Your task to perform on an android device: see tabs open on other devices in the chrome app Image 0: 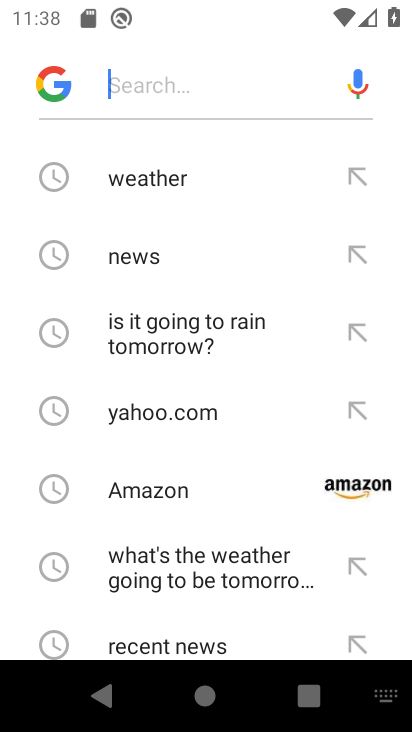
Step 0: press home button
Your task to perform on an android device: see tabs open on other devices in the chrome app Image 1: 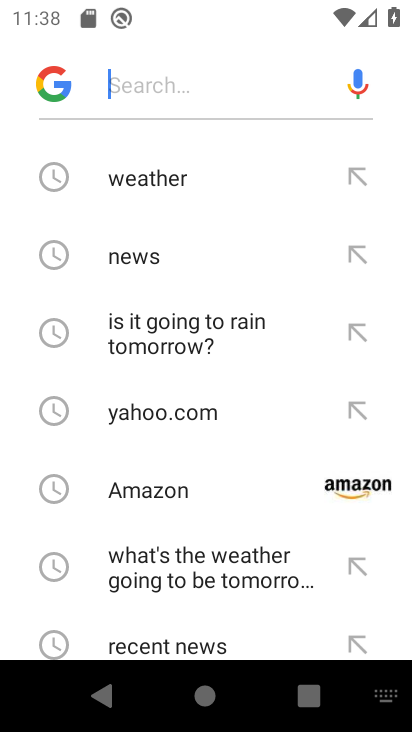
Step 1: click (324, 388)
Your task to perform on an android device: see tabs open on other devices in the chrome app Image 2: 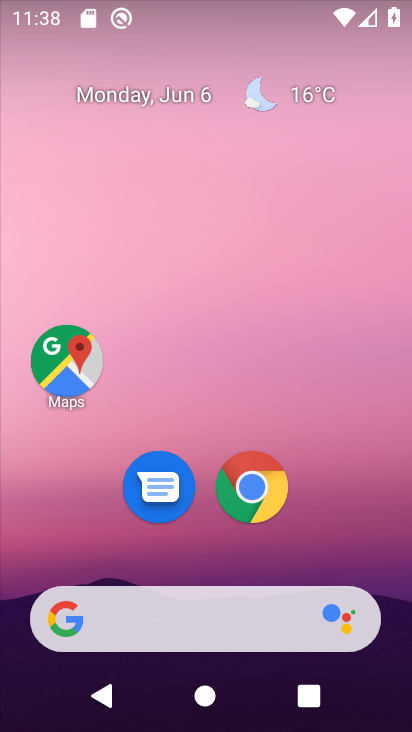
Step 2: click (265, 467)
Your task to perform on an android device: see tabs open on other devices in the chrome app Image 3: 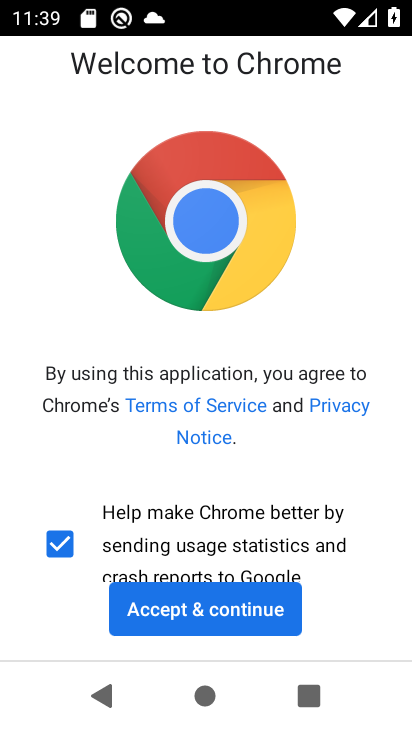
Step 3: click (232, 615)
Your task to perform on an android device: see tabs open on other devices in the chrome app Image 4: 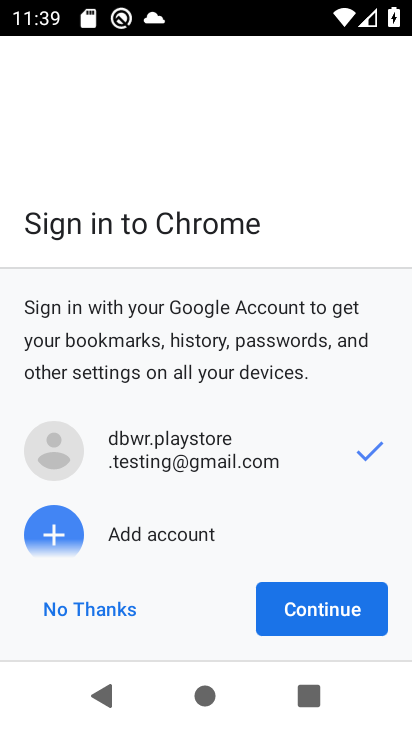
Step 4: click (281, 614)
Your task to perform on an android device: see tabs open on other devices in the chrome app Image 5: 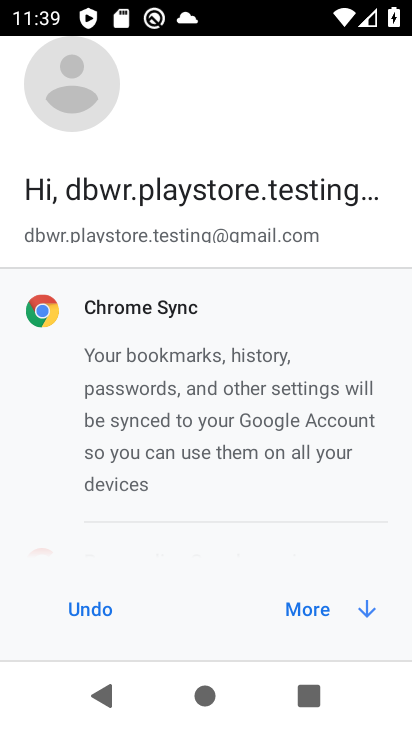
Step 5: click (293, 612)
Your task to perform on an android device: see tabs open on other devices in the chrome app Image 6: 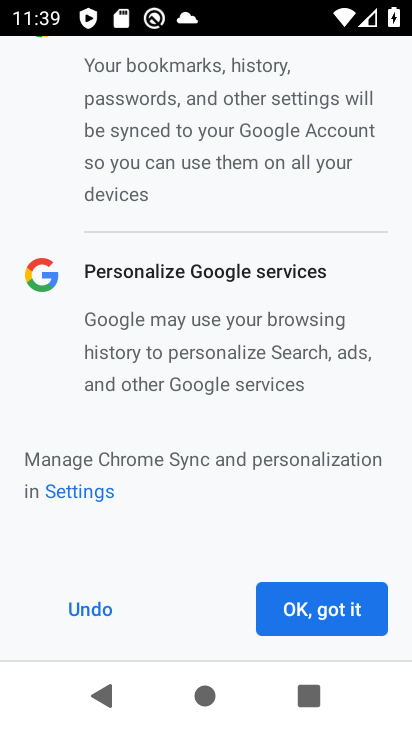
Step 6: click (297, 611)
Your task to perform on an android device: see tabs open on other devices in the chrome app Image 7: 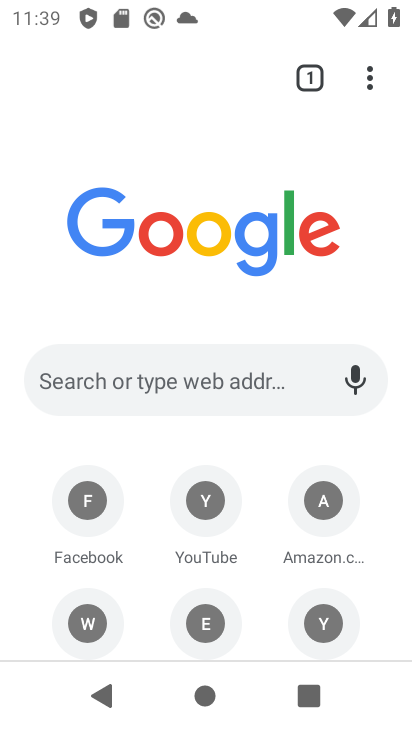
Step 7: click (366, 86)
Your task to perform on an android device: see tabs open on other devices in the chrome app Image 8: 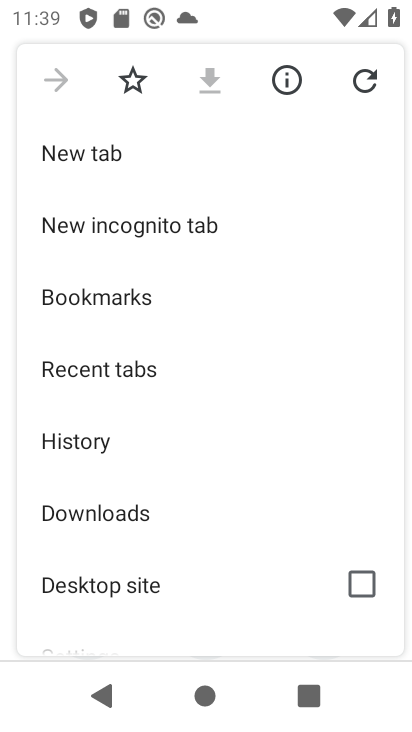
Step 8: click (135, 384)
Your task to perform on an android device: see tabs open on other devices in the chrome app Image 9: 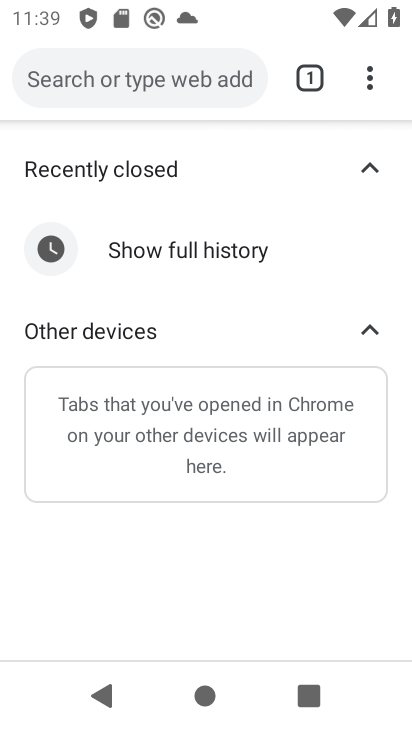
Step 9: task complete